Your task to perform on an android device: turn off location Image 0: 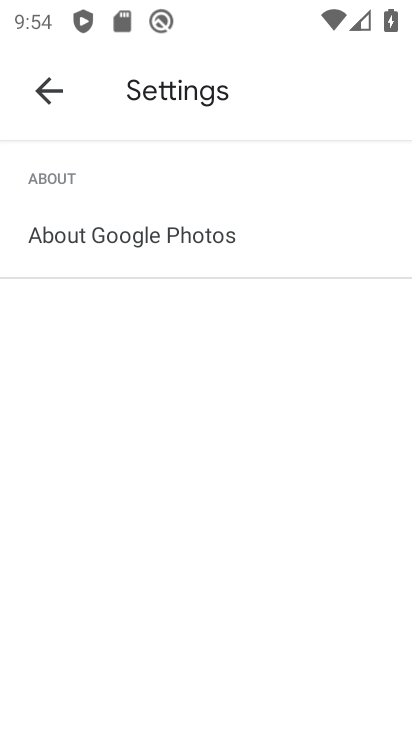
Step 0: press home button
Your task to perform on an android device: turn off location Image 1: 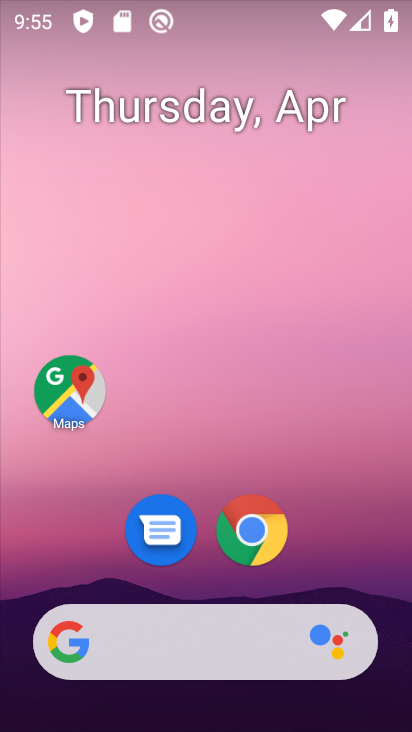
Step 1: drag from (192, 701) to (188, 65)
Your task to perform on an android device: turn off location Image 2: 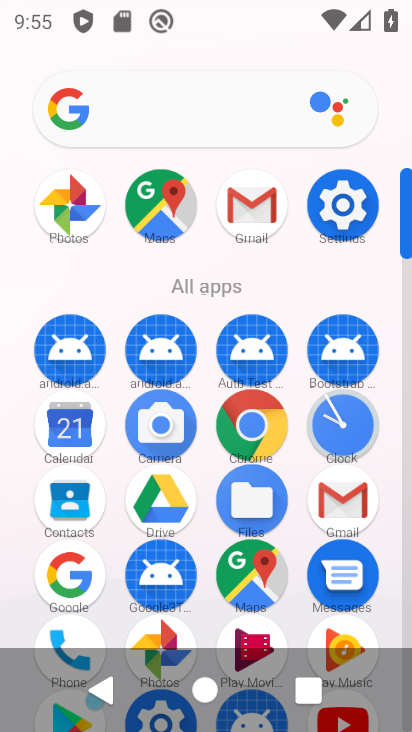
Step 2: click (344, 201)
Your task to perform on an android device: turn off location Image 3: 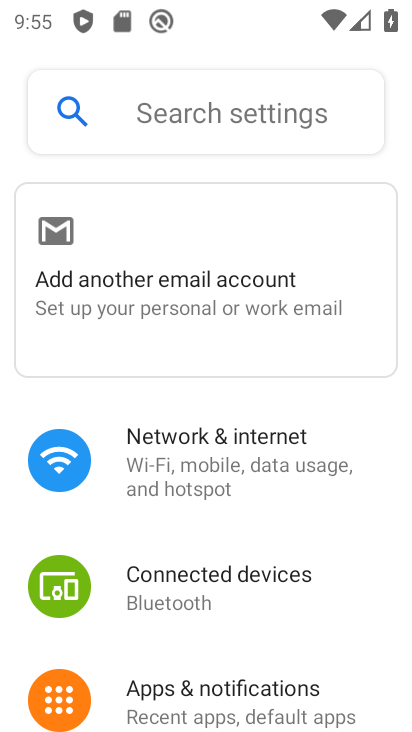
Step 3: drag from (171, 662) to (165, 275)
Your task to perform on an android device: turn off location Image 4: 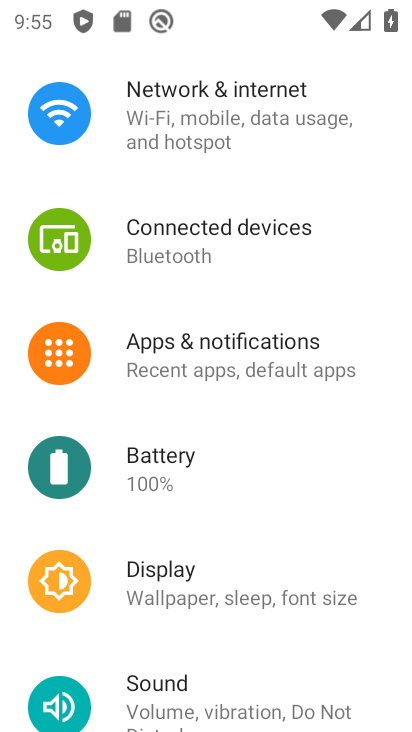
Step 4: drag from (187, 673) to (185, 179)
Your task to perform on an android device: turn off location Image 5: 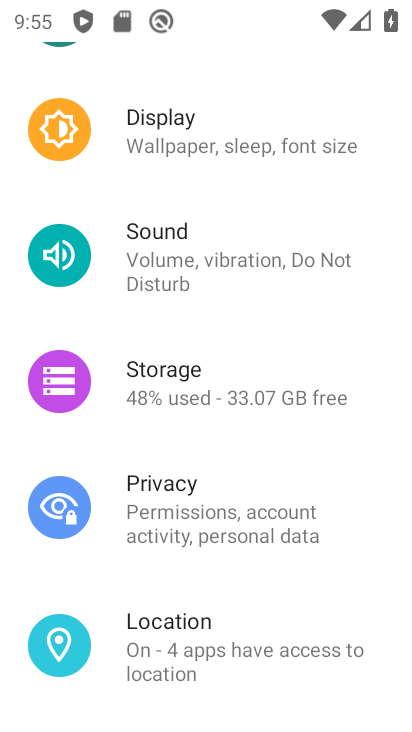
Step 5: click (175, 634)
Your task to perform on an android device: turn off location Image 6: 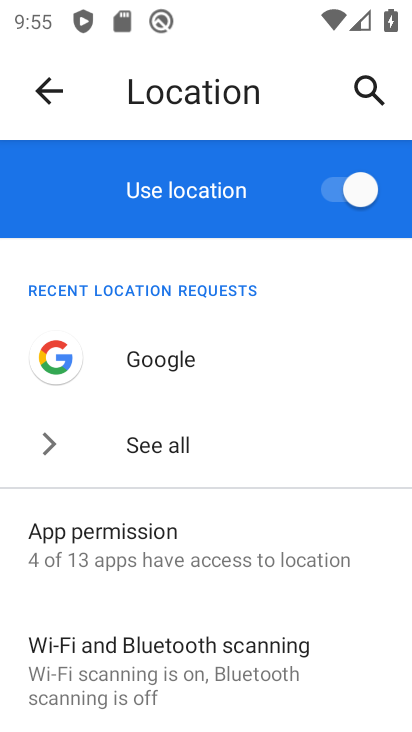
Step 6: click (329, 198)
Your task to perform on an android device: turn off location Image 7: 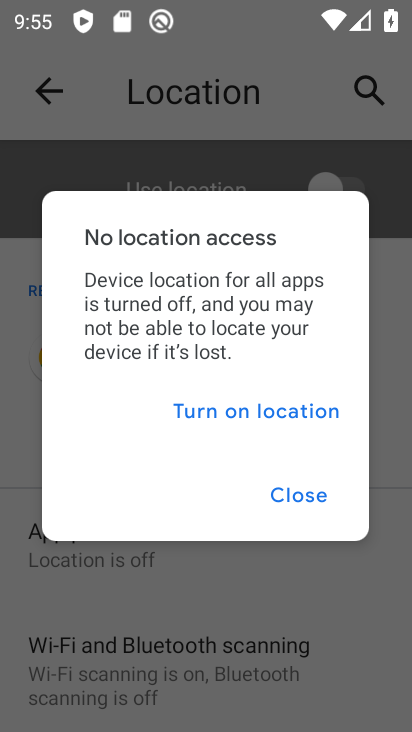
Step 7: task complete